Your task to perform on an android device: View the shopping cart on ebay. Search for "bose soundsport free" on ebay, select the first entry, add it to the cart, then select checkout. Image 0: 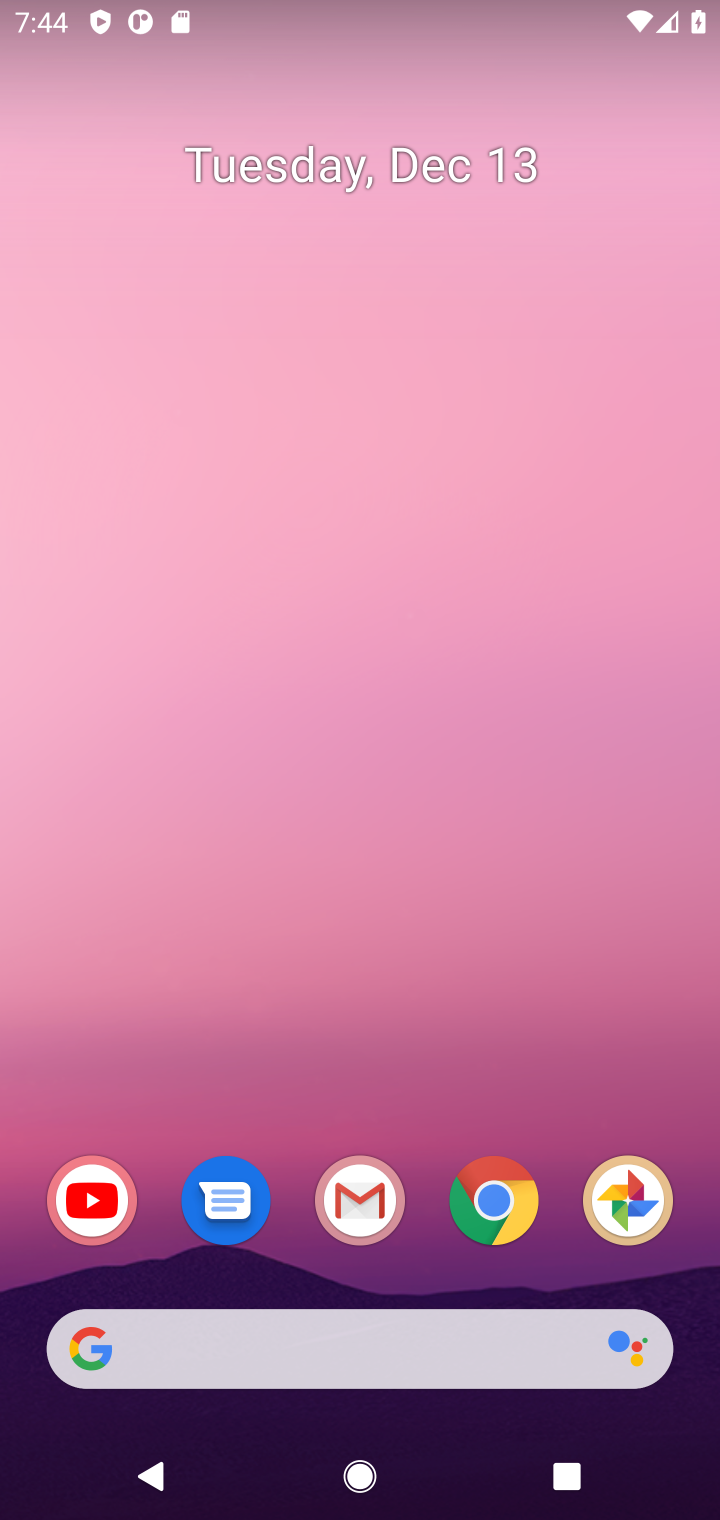
Step 0: drag from (314, 1252) to (386, 115)
Your task to perform on an android device: View the shopping cart on ebay. Search for "bose soundsport free" on ebay, select the first entry, add it to the cart, then select checkout. Image 1: 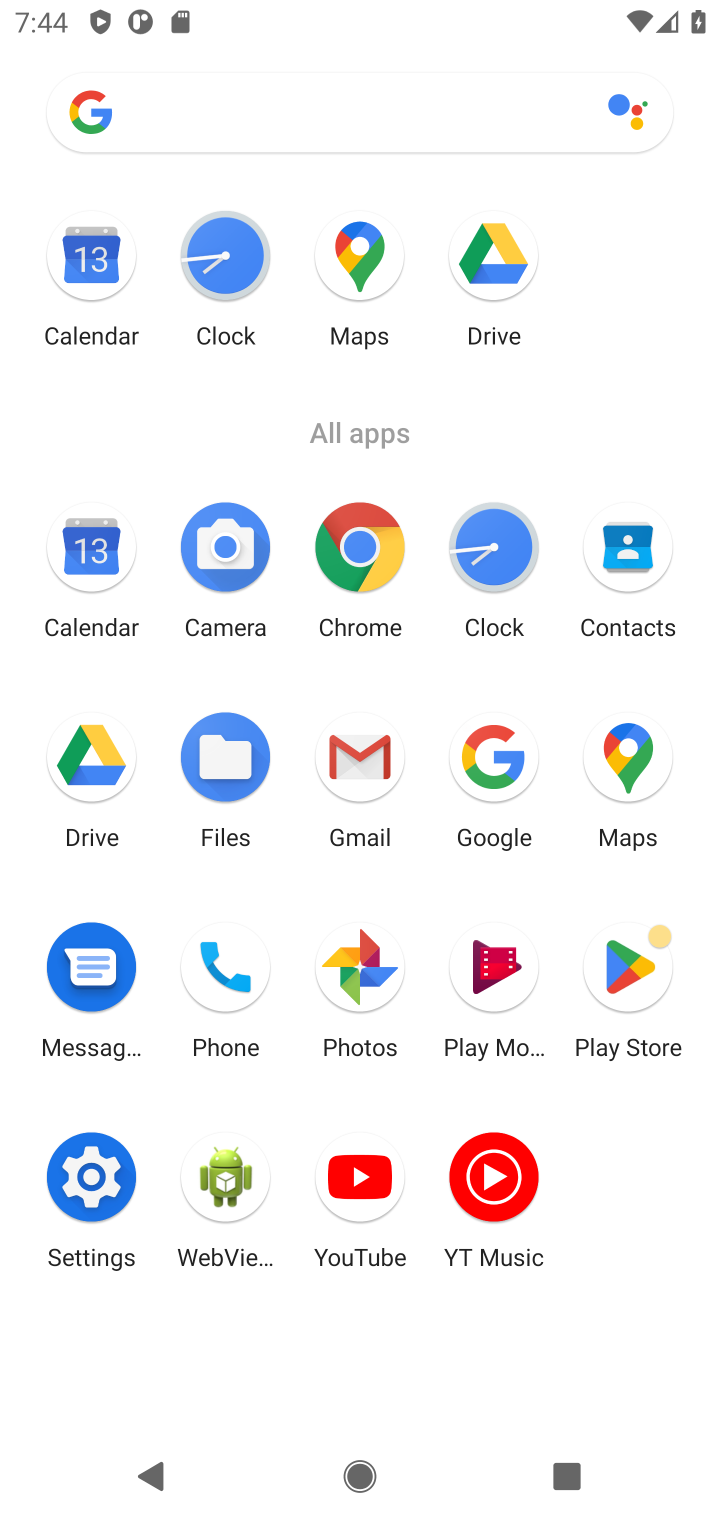
Step 1: click (468, 748)
Your task to perform on an android device: View the shopping cart on ebay. Search for "bose soundsport free" on ebay, select the first entry, add it to the cart, then select checkout. Image 2: 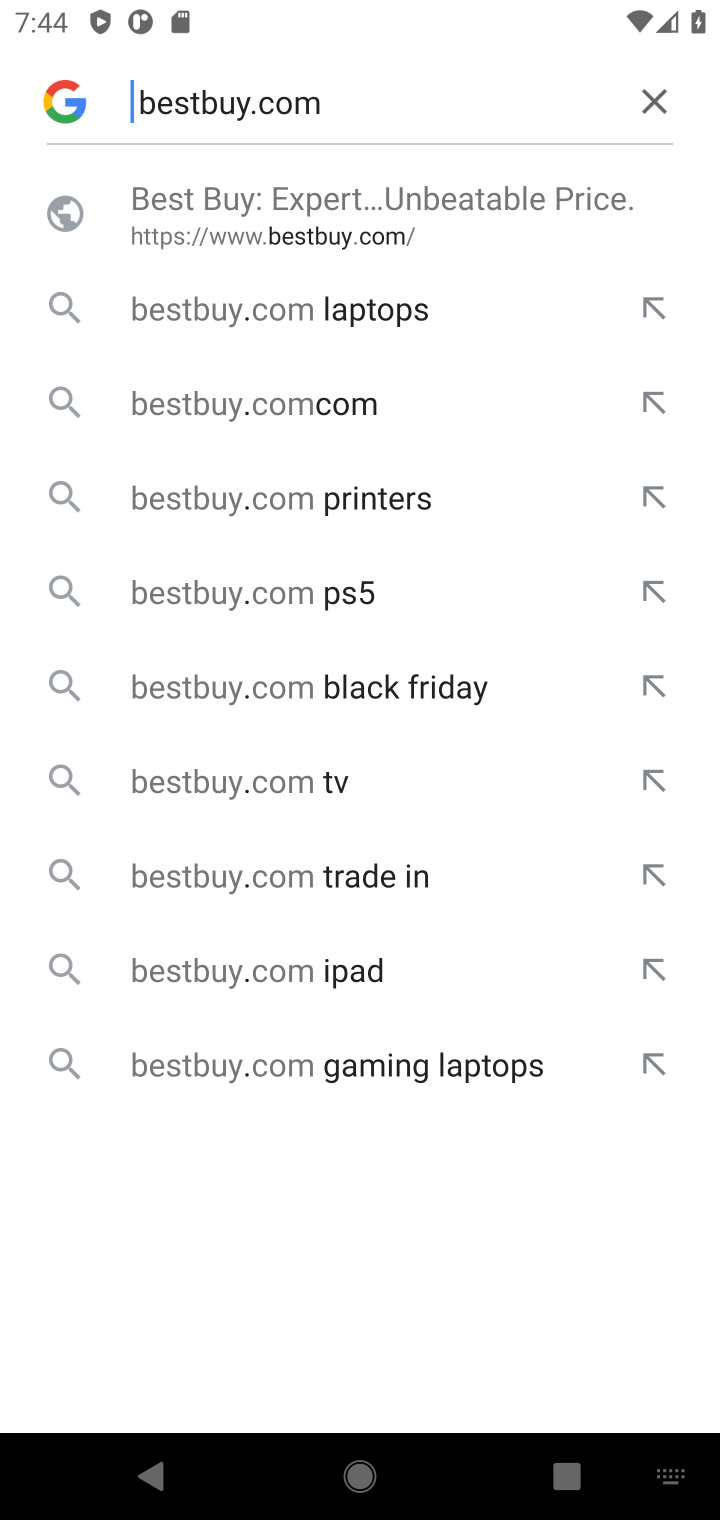
Step 2: type "bose soundsport free"
Your task to perform on an android device: View the shopping cart on ebay. Search for "bose soundsport free" on ebay, select the first entry, add it to the cart, then select checkout. Image 3: 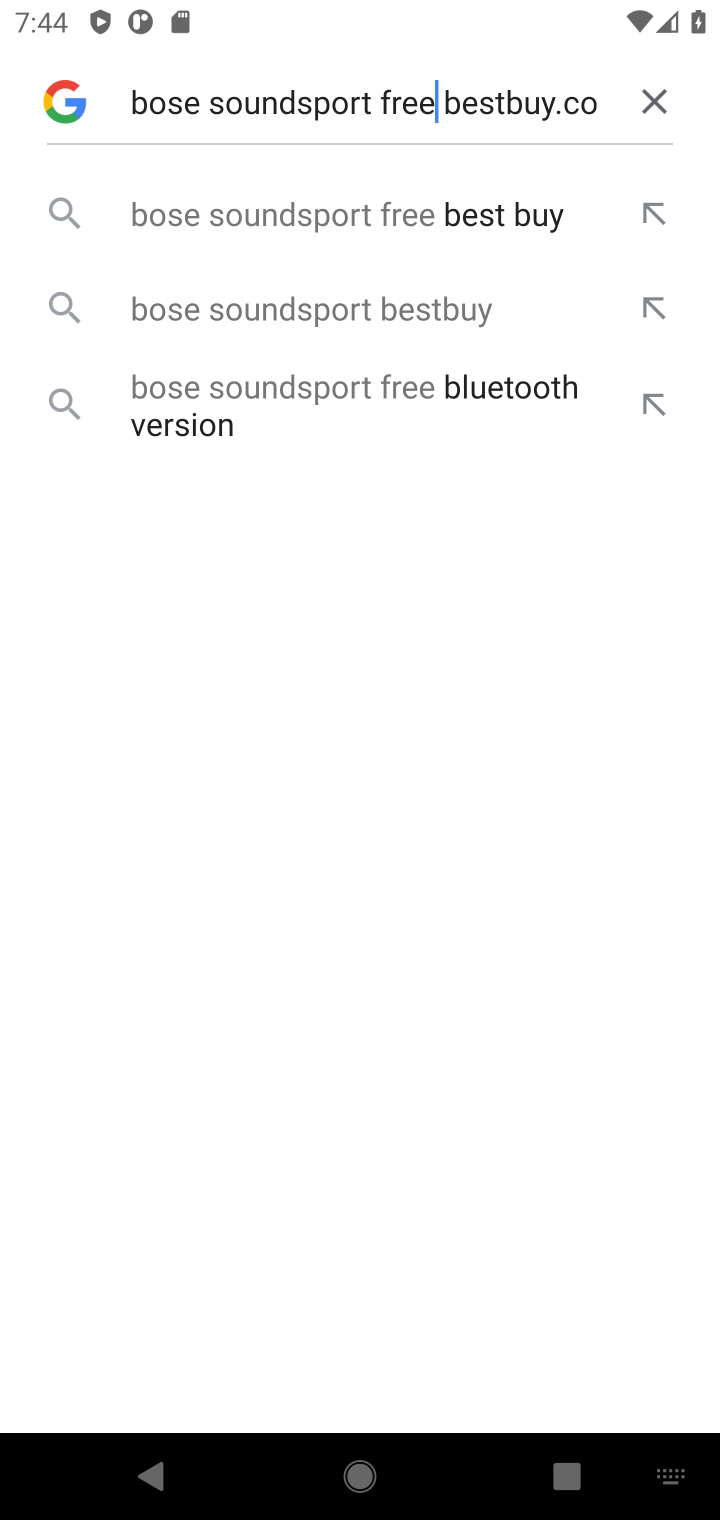
Step 3: click (649, 102)
Your task to perform on an android device: View the shopping cart on ebay. Search for "bose soundsport free" on ebay, select the first entry, add it to the cart, then select checkout. Image 4: 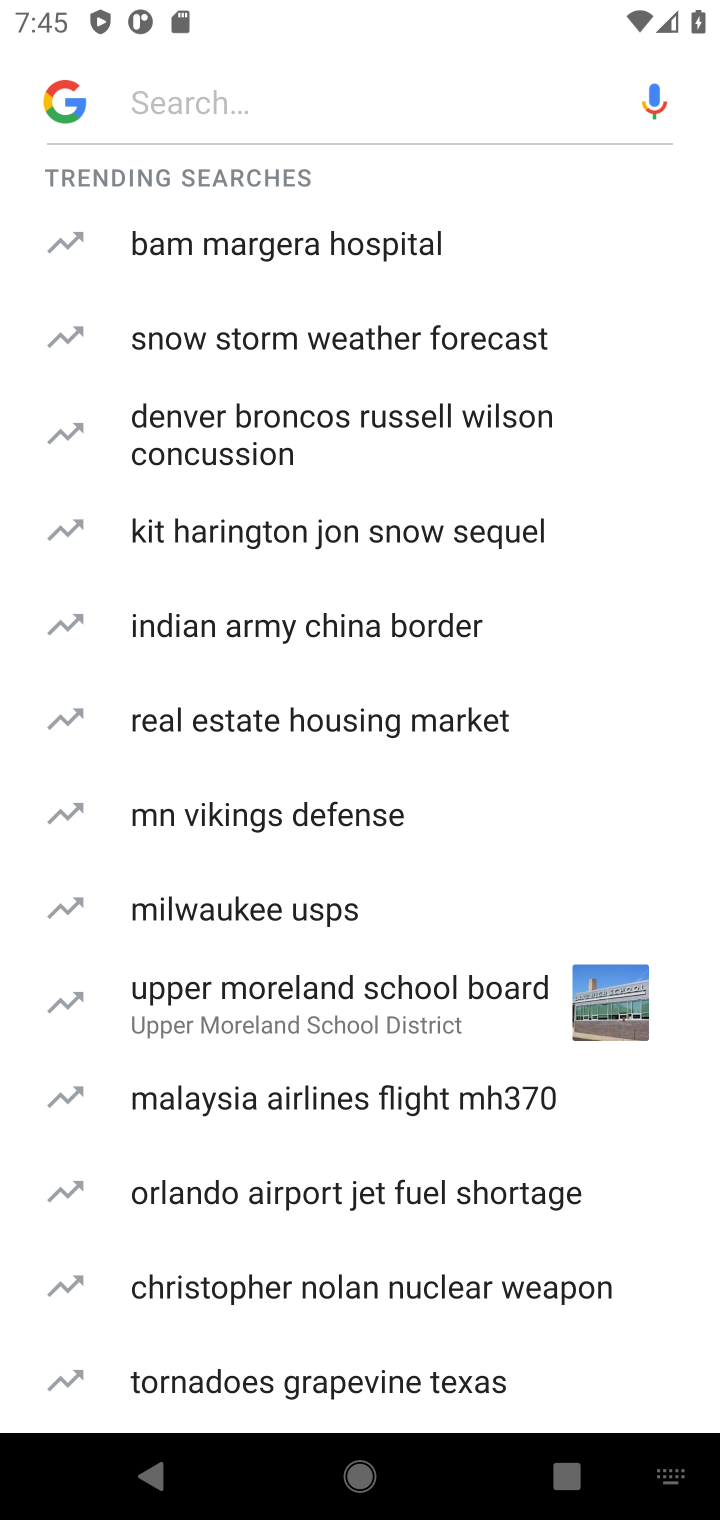
Step 4: type "ebay"
Your task to perform on an android device: View the shopping cart on ebay. Search for "bose soundsport free" on ebay, select the first entry, add it to the cart, then select checkout. Image 5: 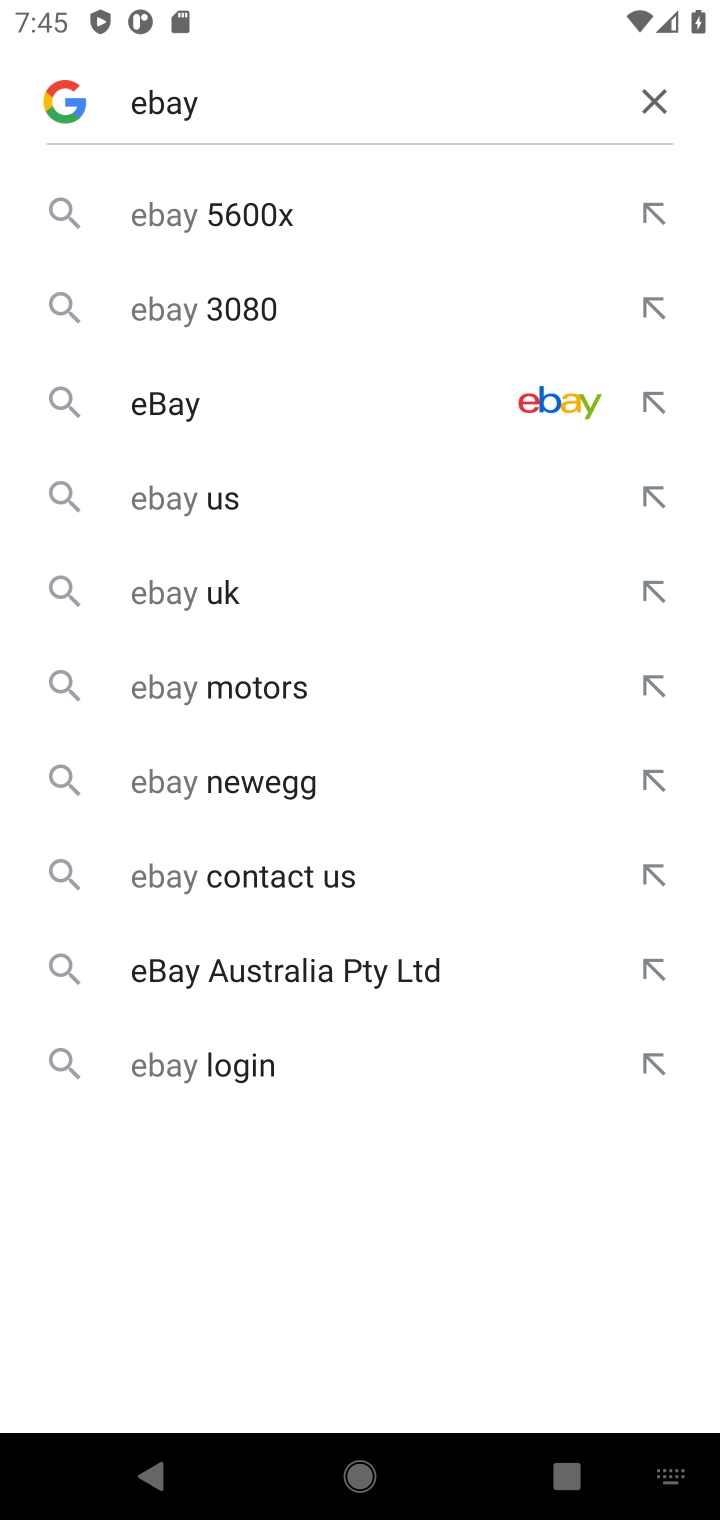
Step 5: click (469, 424)
Your task to perform on an android device: View the shopping cart on ebay. Search for "bose soundsport free" on ebay, select the first entry, add it to the cart, then select checkout. Image 6: 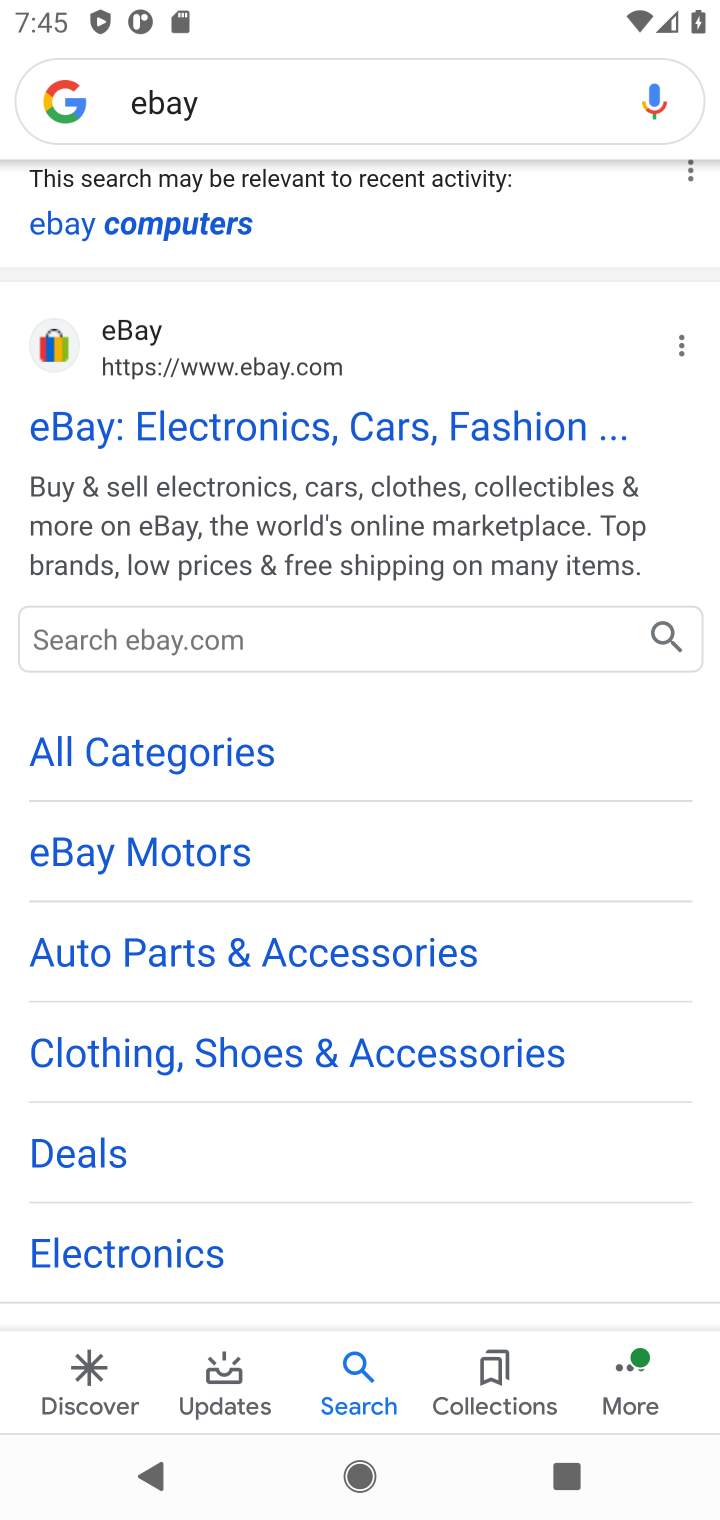
Step 6: click (124, 340)
Your task to perform on an android device: View the shopping cart on ebay. Search for "bose soundsport free" on ebay, select the first entry, add it to the cart, then select checkout. Image 7: 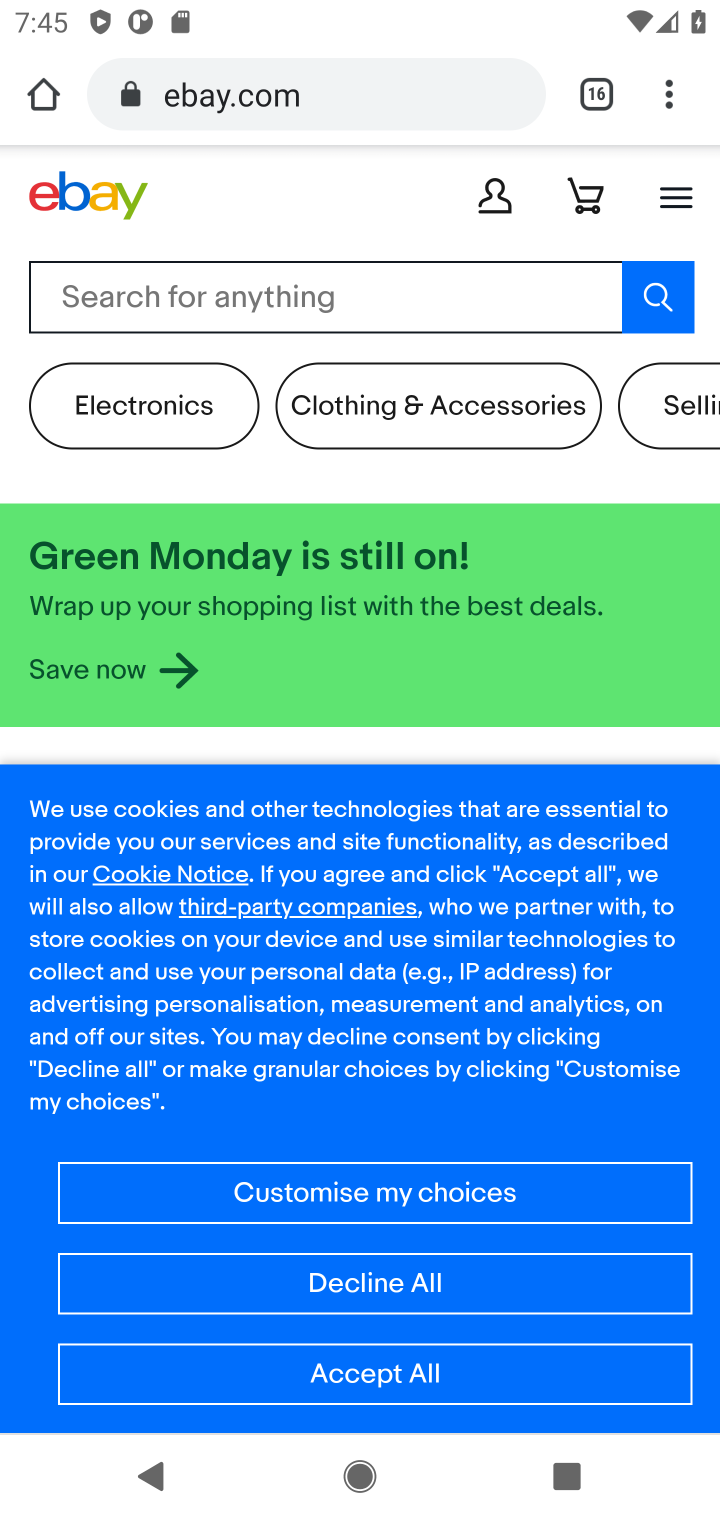
Step 7: click (365, 1368)
Your task to perform on an android device: View the shopping cart on ebay. Search for "bose soundsport free" on ebay, select the first entry, add it to the cart, then select checkout. Image 8: 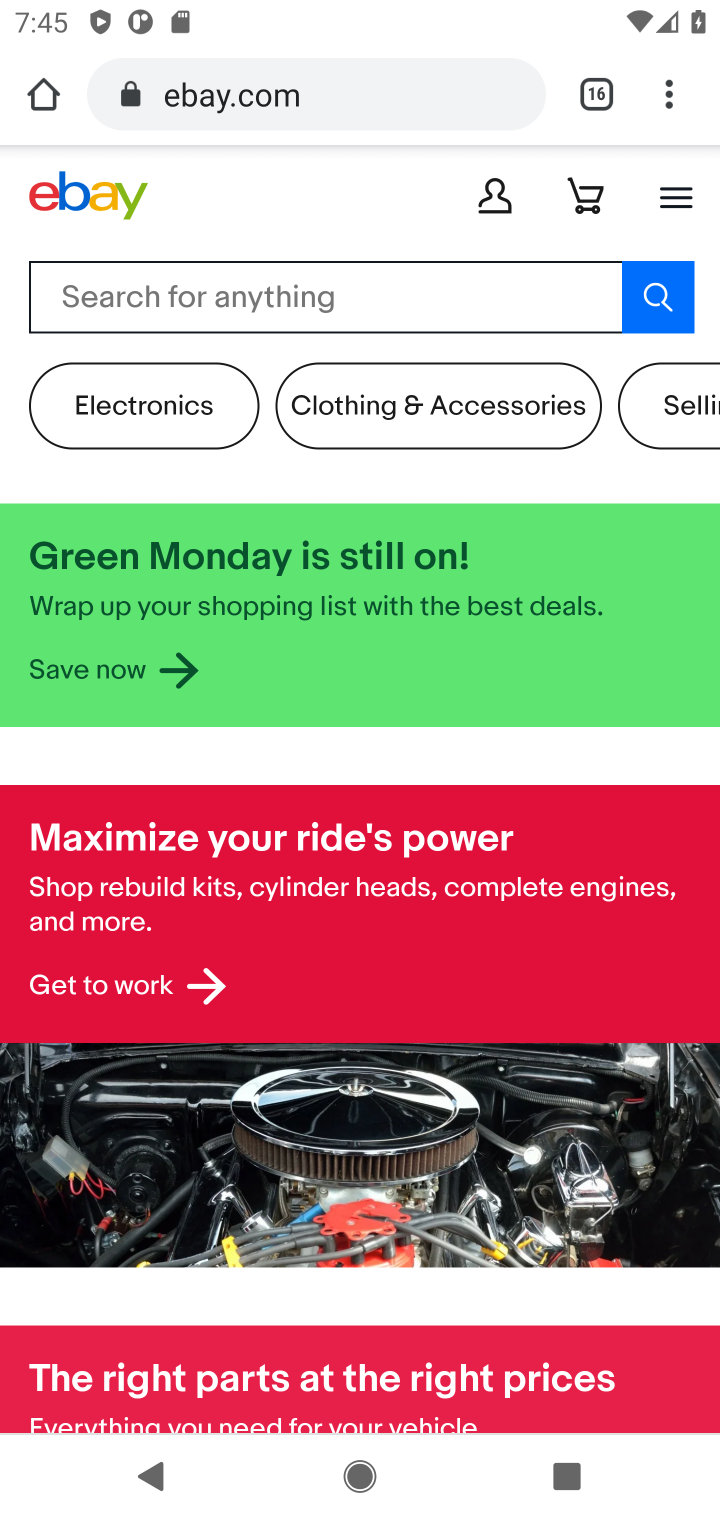
Step 8: click (491, 294)
Your task to perform on an android device: View the shopping cart on ebay. Search for "bose soundsport free" on ebay, select the first entry, add it to the cart, then select checkout. Image 9: 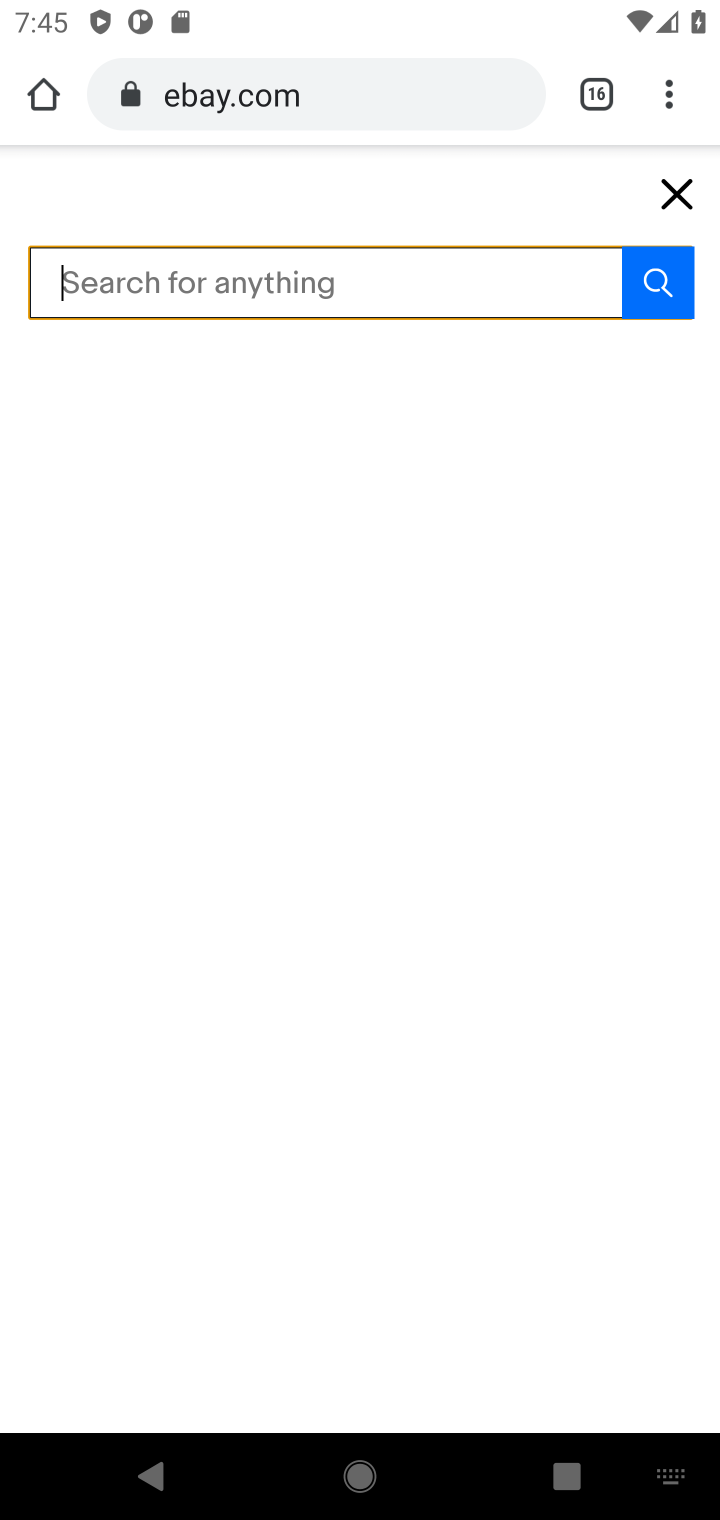
Step 9: type "bose soundsport free"
Your task to perform on an android device: View the shopping cart on ebay. Search for "bose soundsport free" on ebay, select the first entry, add it to the cart, then select checkout. Image 10: 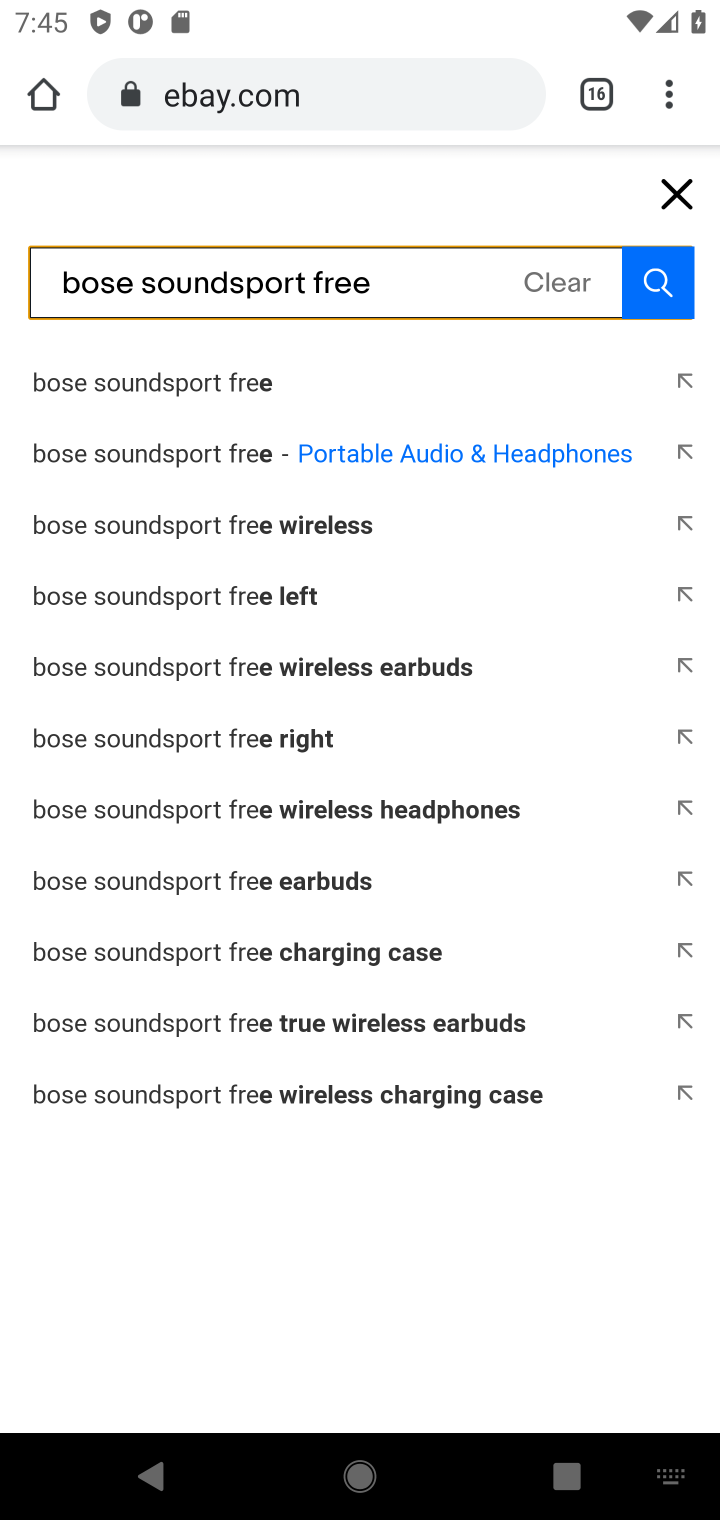
Step 10: click (192, 374)
Your task to perform on an android device: View the shopping cart on ebay. Search for "bose soundsport free" on ebay, select the first entry, add it to the cart, then select checkout. Image 11: 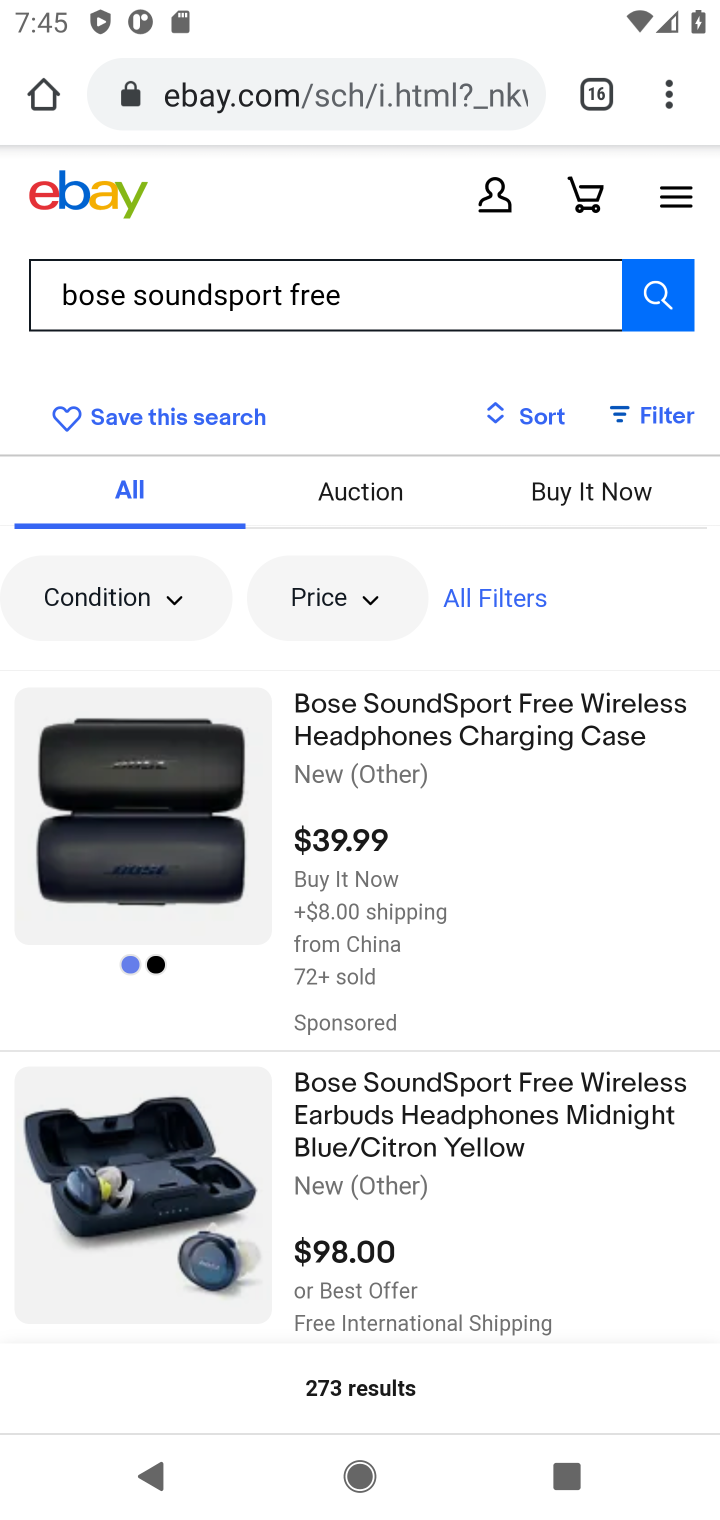
Step 11: click (303, 734)
Your task to perform on an android device: View the shopping cart on ebay. Search for "bose soundsport free" on ebay, select the first entry, add it to the cart, then select checkout. Image 12: 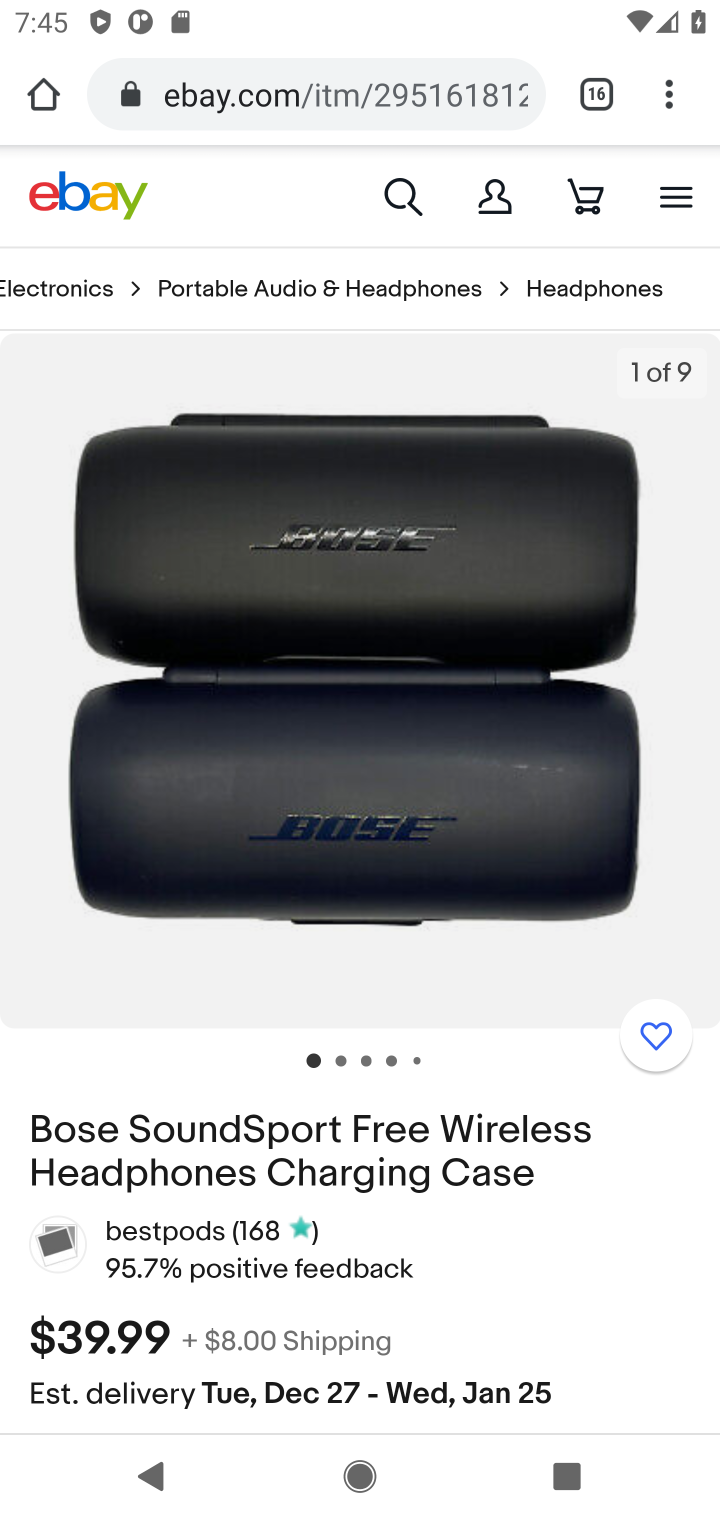
Step 12: drag from (465, 1149) to (393, 632)
Your task to perform on an android device: View the shopping cart on ebay. Search for "bose soundsport free" on ebay, select the first entry, add it to the cart, then select checkout. Image 13: 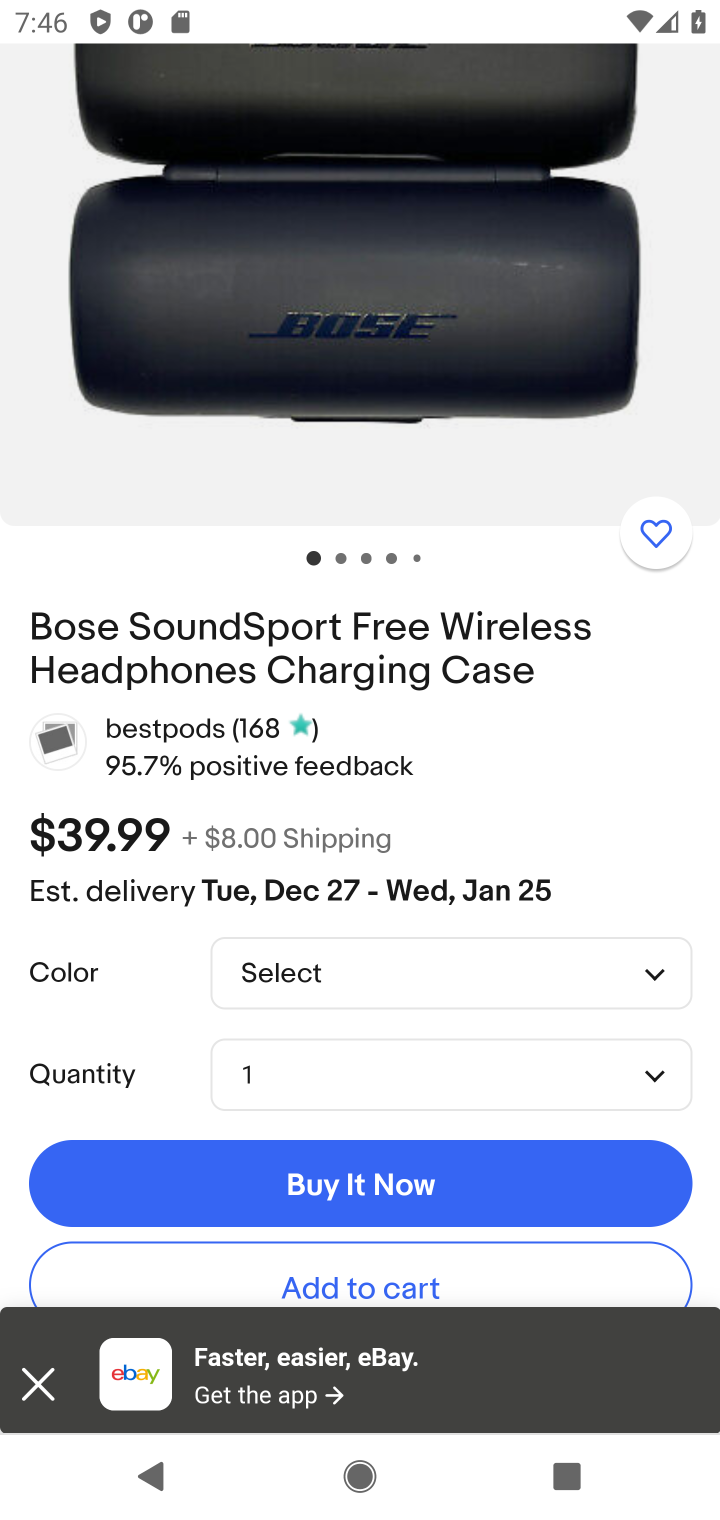
Step 13: drag from (373, 1086) to (373, 249)
Your task to perform on an android device: View the shopping cart on ebay. Search for "bose soundsport free" on ebay, select the first entry, add it to the cart, then select checkout. Image 14: 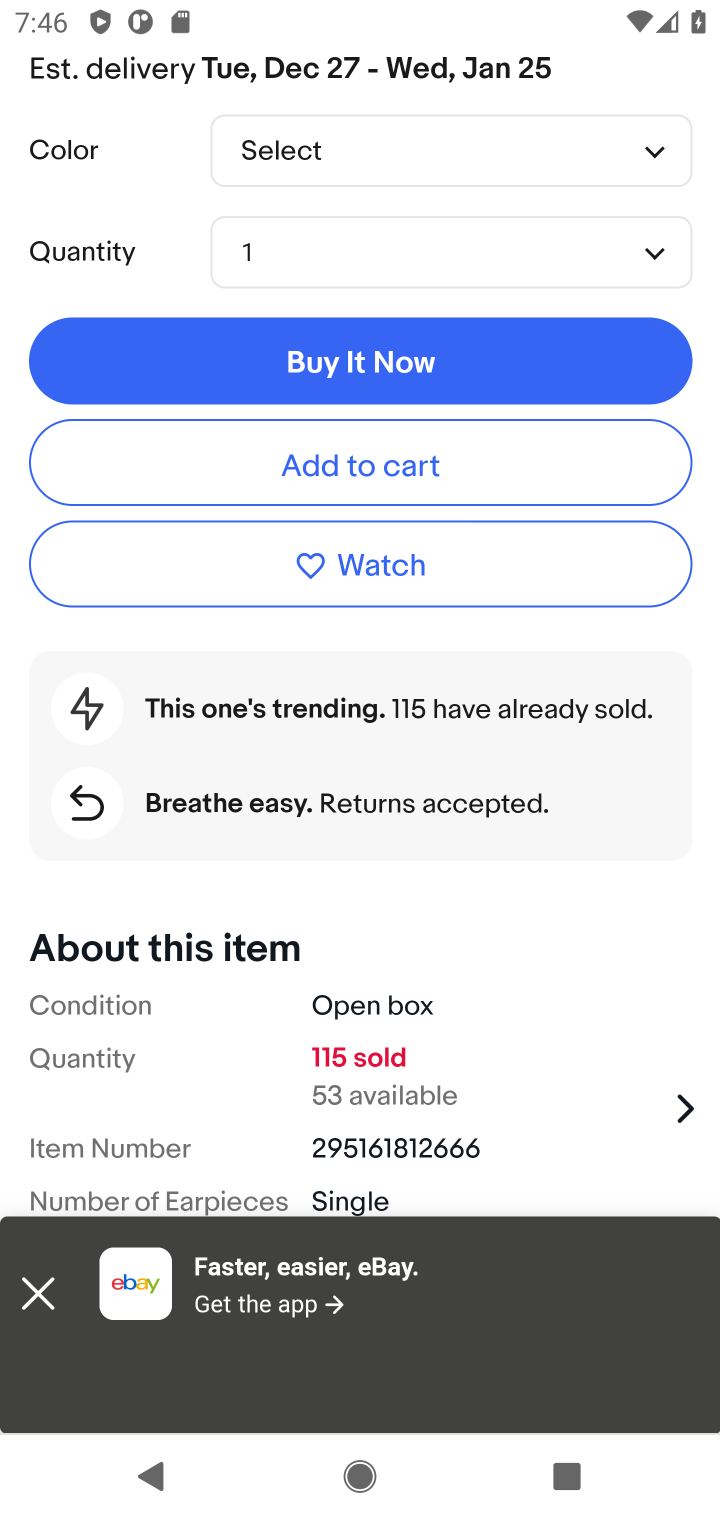
Step 14: click (373, 462)
Your task to perform on an android device: View the shopping cart on ebay. Search for "bose soundsport free" on ebay, select the first entry, add it to the cart, then select checkout. Image 15: 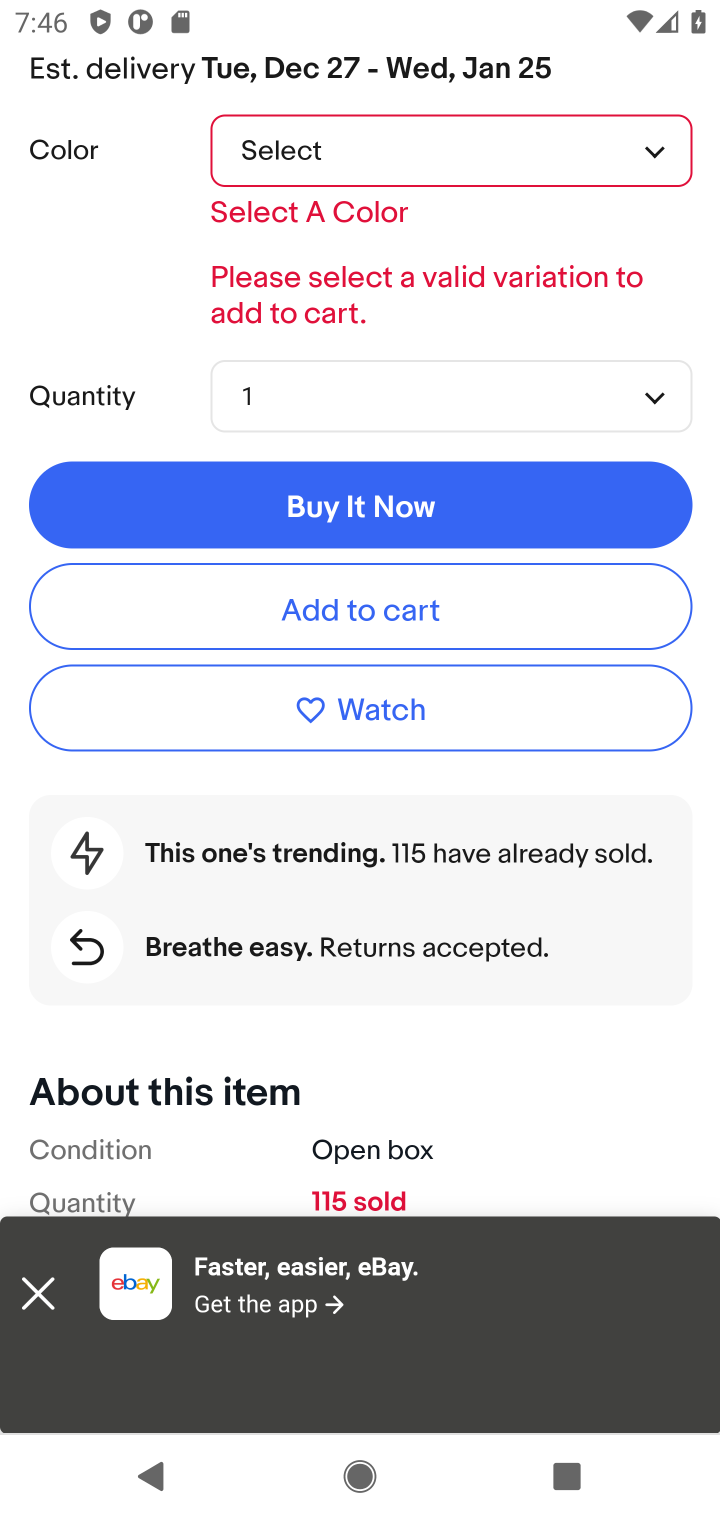
Step 15: click (613, 152)
Your task to perform on an android device: View the shopping cart on ebay. Search for "bose soundsport free" on ebay, select the first entry, add it to the cart, then select checkout. Image 16: 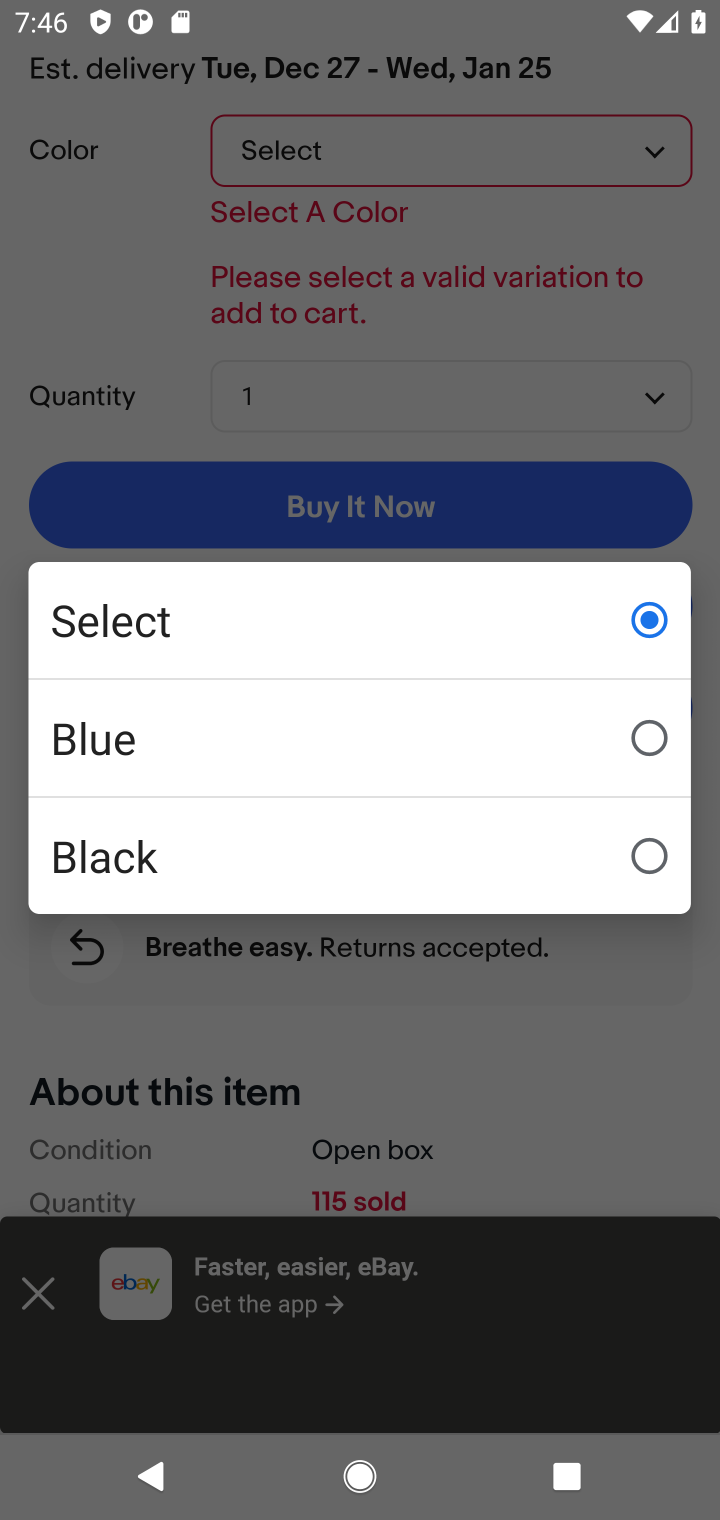
Step 16: click (596, 739)
Your task to perform on an android device: View the shopping cart on ebay. Search for "bose soundsport free" on ebay, select the first entry, add it to the cart, then select checkout. Image 17: 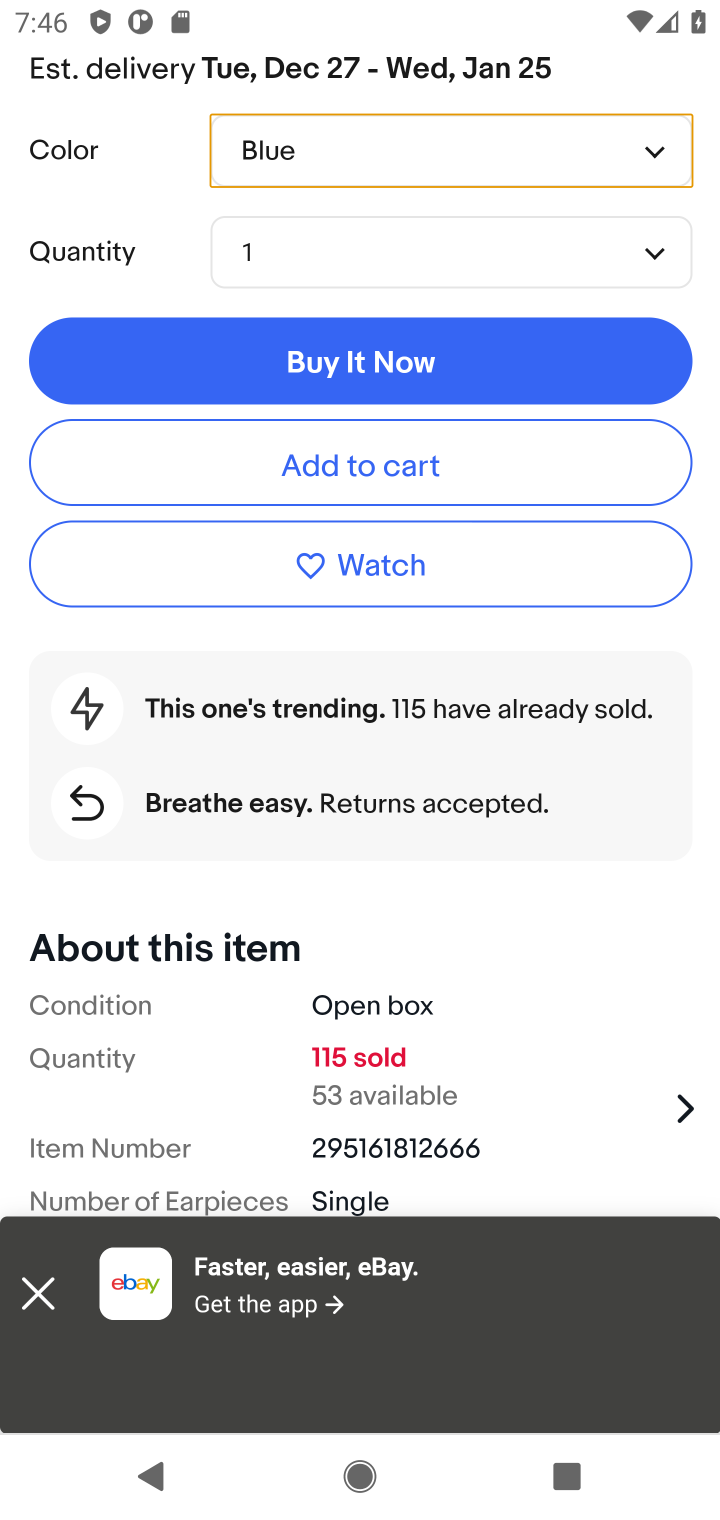
Step 17: click (356, 479)
Your task to perform on an android device: View the shopping cart on ebay. Search for "bose soundsport free" on ebay, select the first entry, add it to the cart, then select checkout. Image 18: 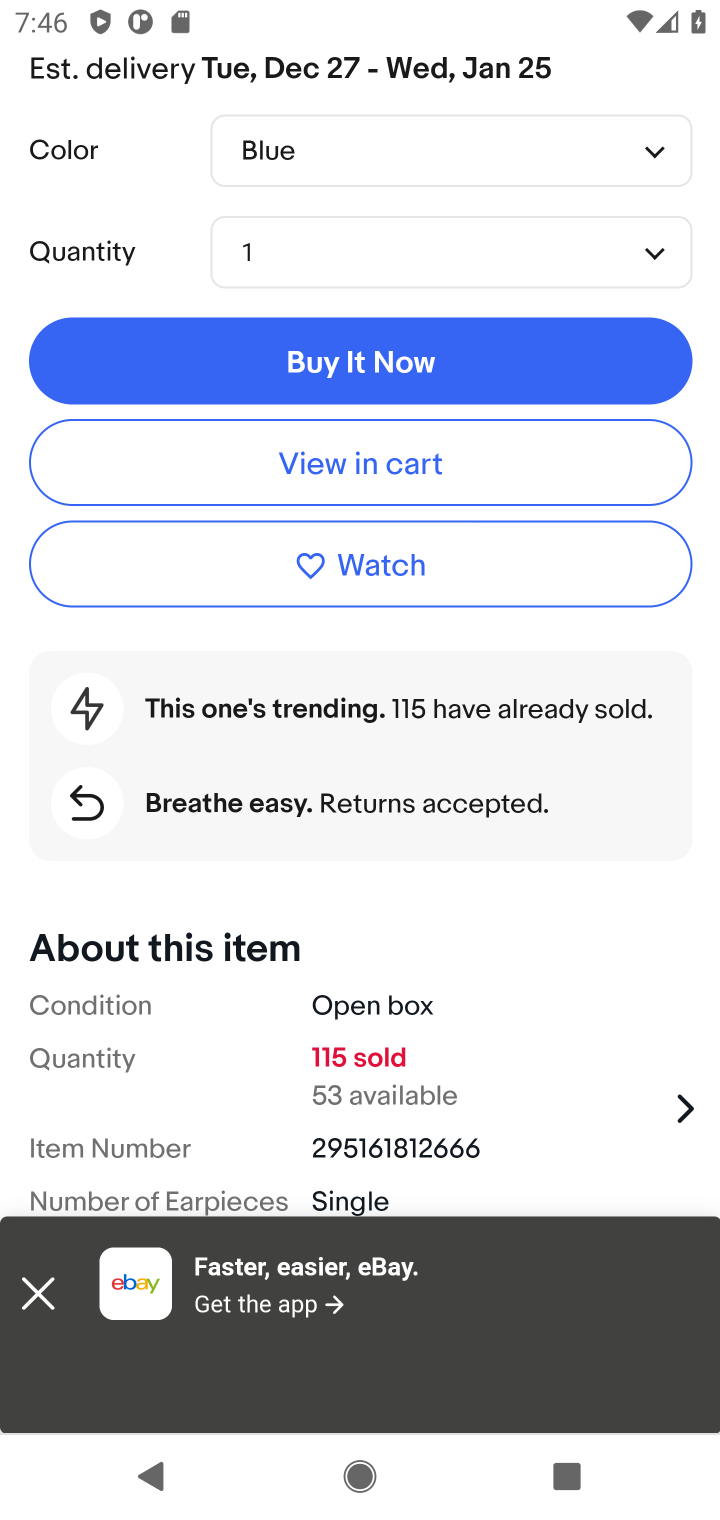
Step 18: click (349, 468)
Your task to perform on an android device: View the shopping cart on ebay. Search for "bose soundsport free" on ebay, select the first entry, add it to the cart, then select checkout. Image 19: 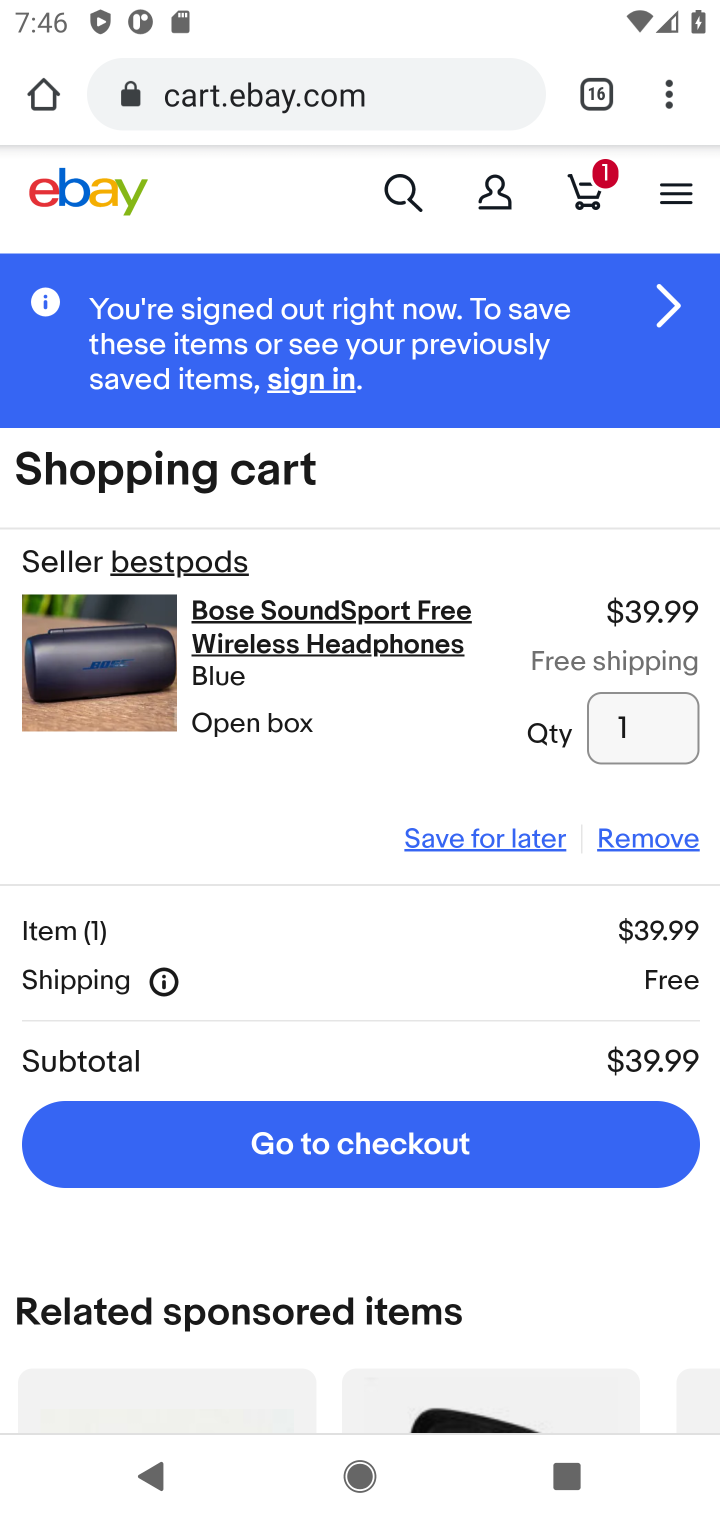
Step 19: click (357, 1148)
Your task to perform on an android device: View the shopping cart on ebay. Search for "bose soundsport free" on ebay, select the first entry, add it to the cart, then select checkout. Image 20: 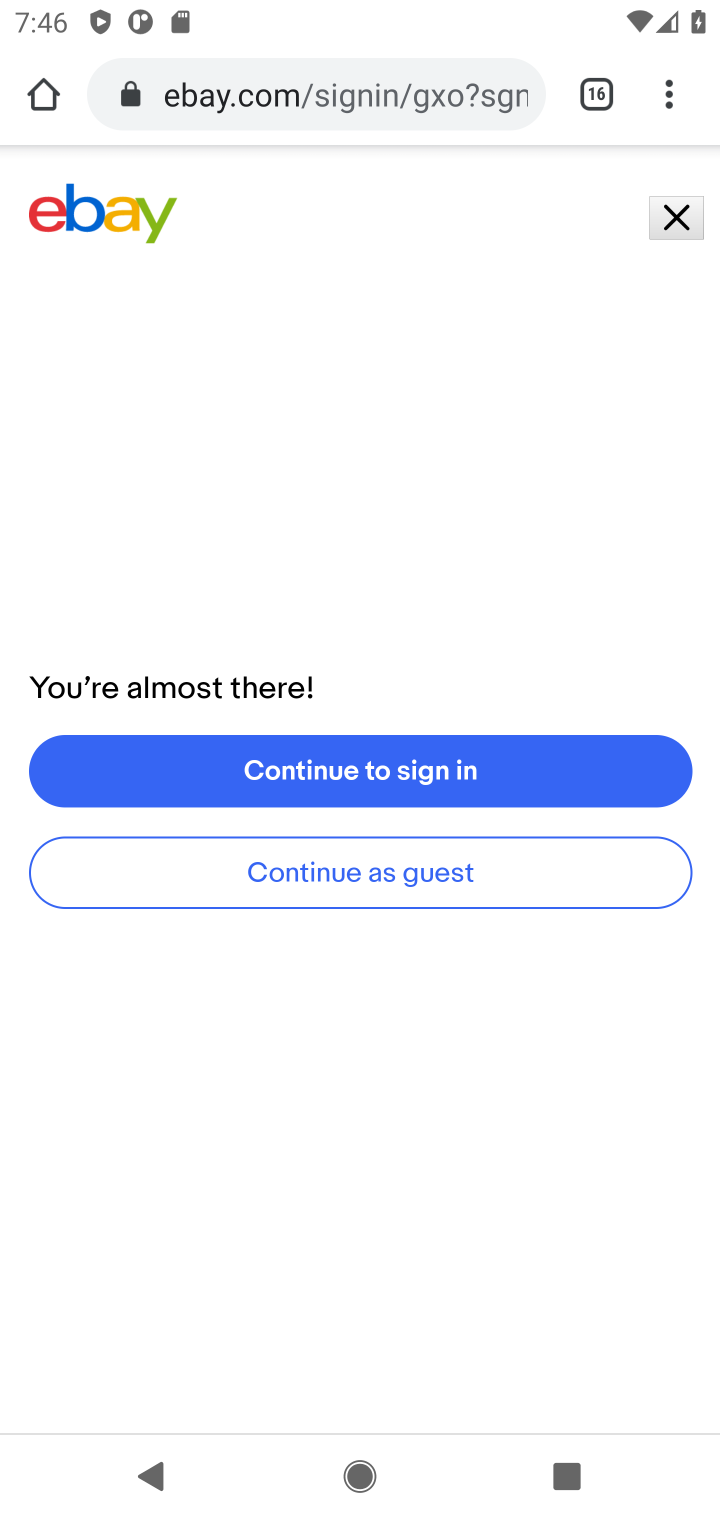
Step 20: task complete